Your task to perform on an android device: toggle improve location accuracy Image 0: 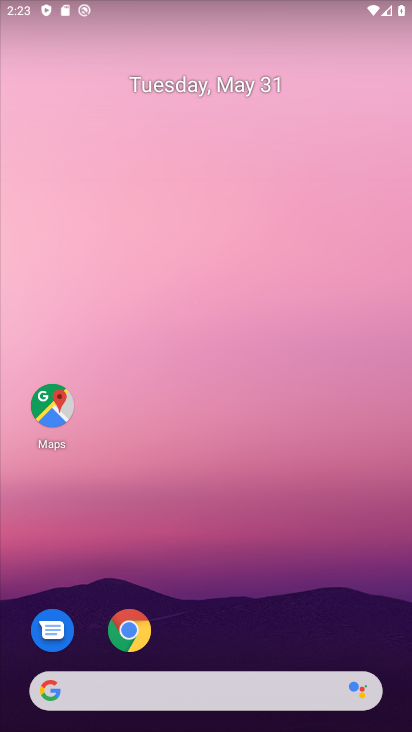
Step 0: drag from (262, 501) to (274, 5)
Your task to perform on an android device: toggle improve location accuracy Image 1: 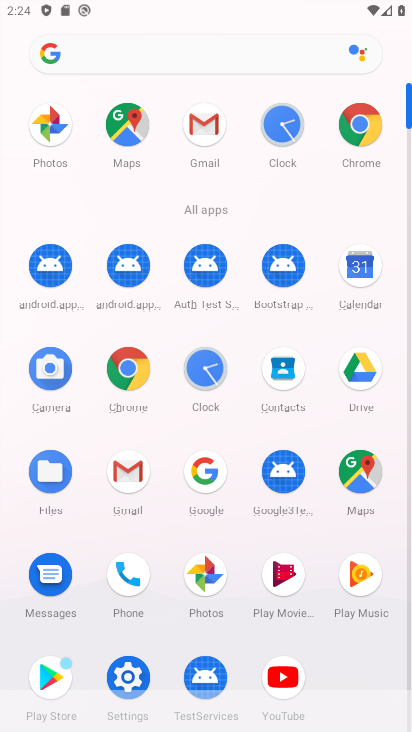
Step 1: click (125, 677)
Your task to perform on an android device: toggle improve location accuracy Image 2: 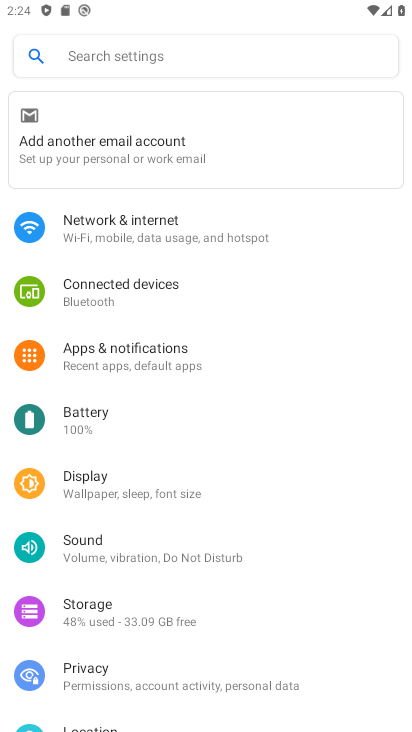
Step 2: drag from (111, 641) to (166, 210)
Your task to perform on an android device: toggle improve location accuracy Image 3: 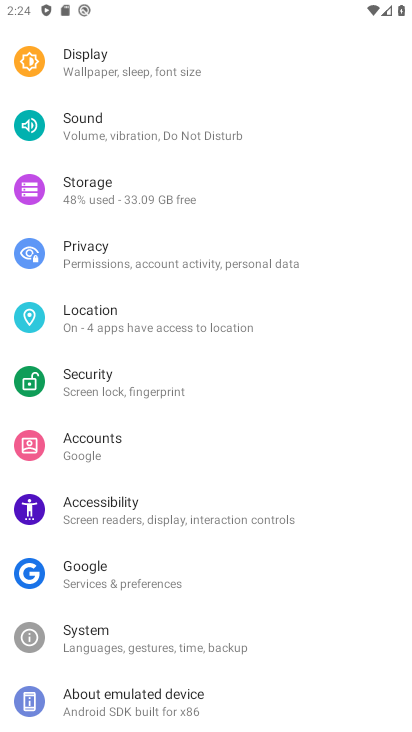
Step 3: click (93, 320)
Your task to perform on an android device: toggle improve location accuracy Image 4: 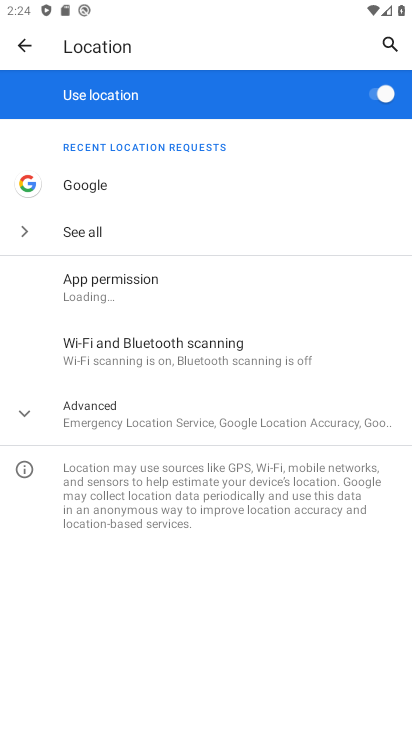
Step 4: click (77, 407)
Your task to perform on an android device: toggle improve location accuracy Image 5: 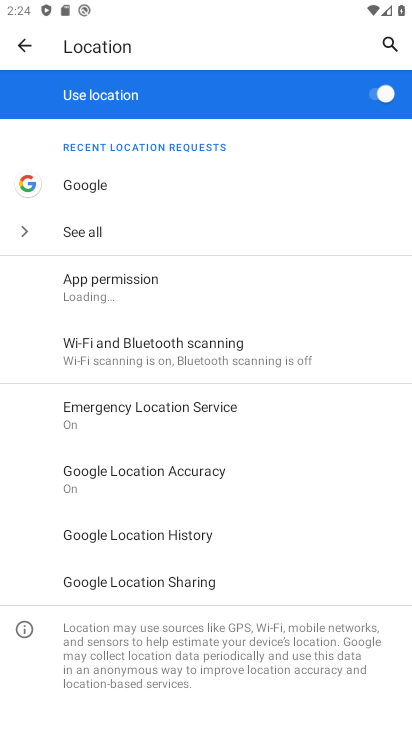
Step 5: click (179, 476)
Your task to perform on an android device: toggle improve location accuracy Image 6: 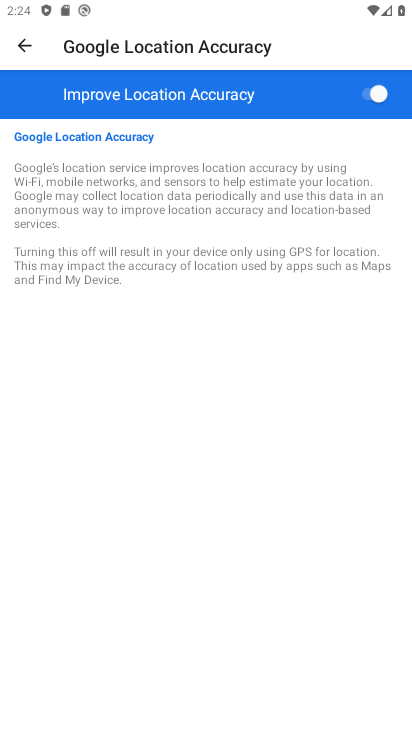
Step 6: click (378, 93)
Your task to perform on an android device: toggle improve location accuracy Image 7: 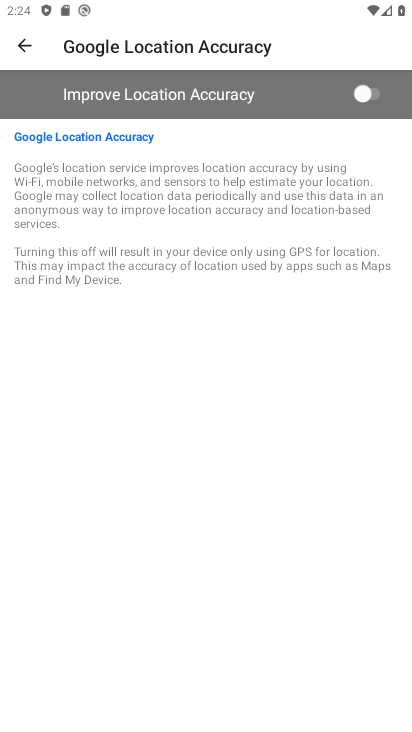
Step 7: task complete